Your task to perform on an android device: turn off improve location accuracy Image 0: 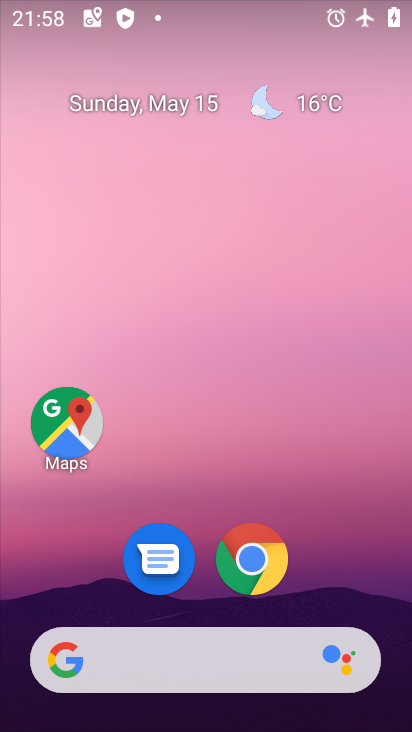
Step 0: drag from (318, 545) to (268, 135)
Your task to perform on an android device: turn off improve location accuracy Image 1: 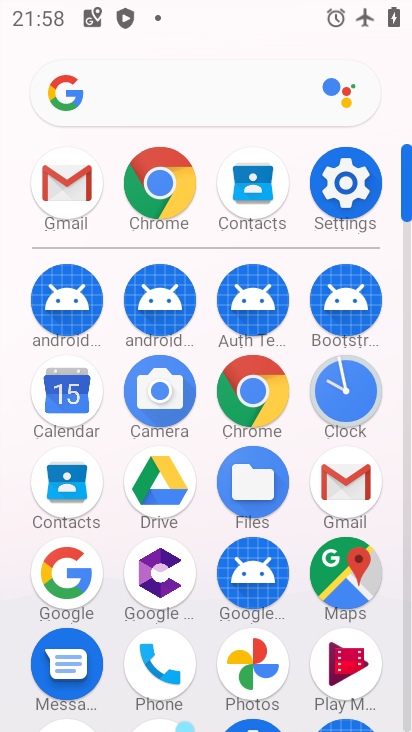
Step 1: click (353, 186)
Your task to perform on an android device: turn off improve location accuracy Image 2: 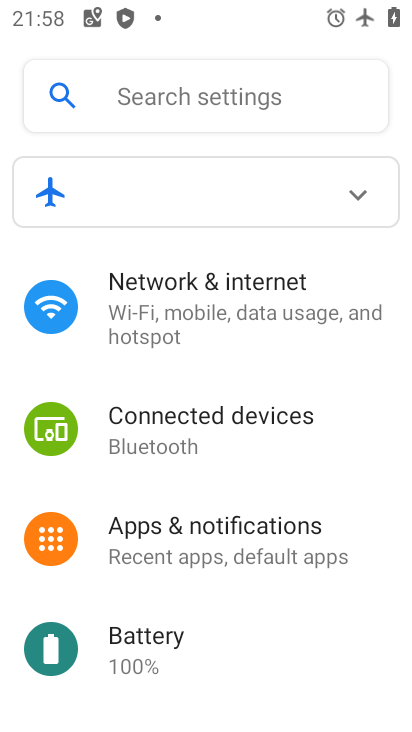
Step 2: drag from (215, 607) to (176, 267)
Your task to perform on an android device: turn off improve location accuracy Image 3: 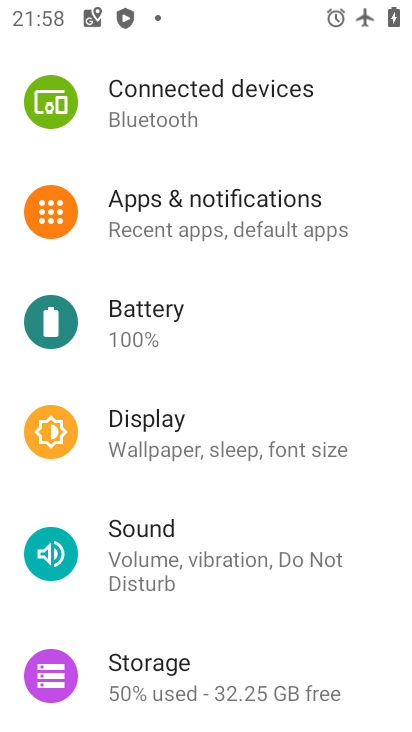
Step 3: drag from (219, 487) to (179, 171)
Your task to perform on an android device: turn off improve location accuracy Image 4: 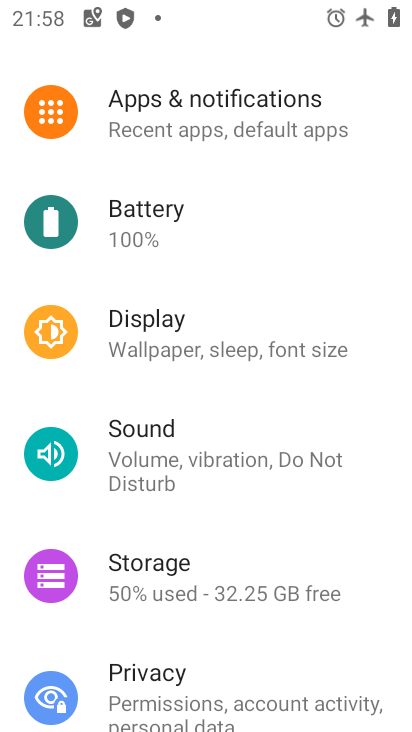
Step 4: drag from (169, 625) to (130, 213)
Your task to perform on an android device: turn off improve location accuracy Image 5: 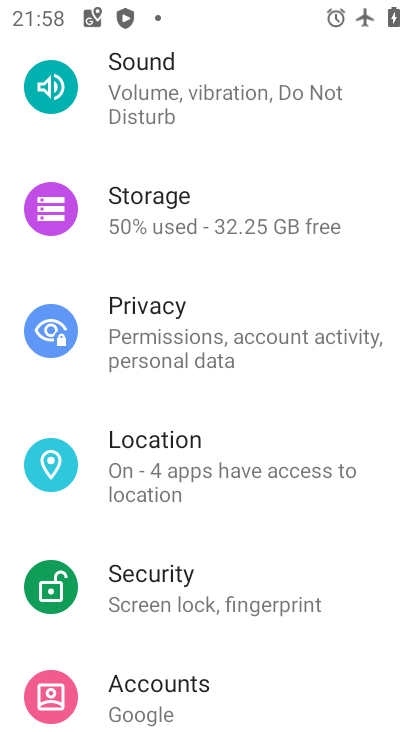
Step 5: click (152, 466)
Your task to perform on an android device: turn off improve location accuracy Image 6: 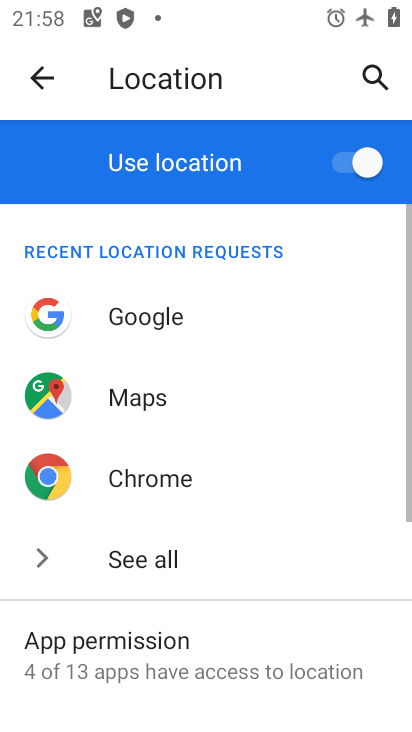
Step 6: drag from (238, 560) to (153, 249)
Your task to perform on an android device: turn off improve location accuracy Image 7: 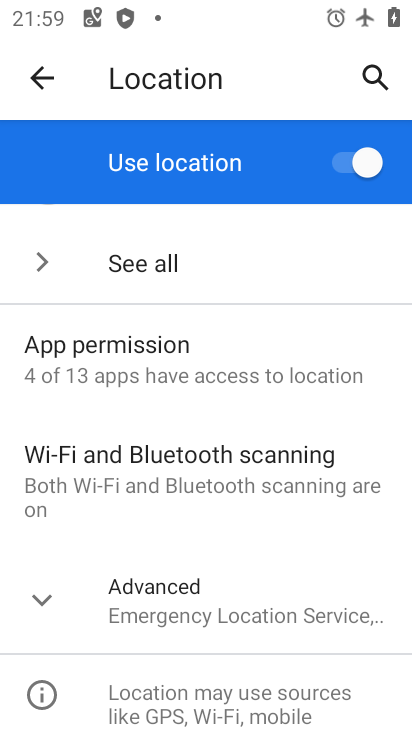
Step 7: click (45, 608)
Your task to perform on an android device: turn off improve location accuracy Image 8: 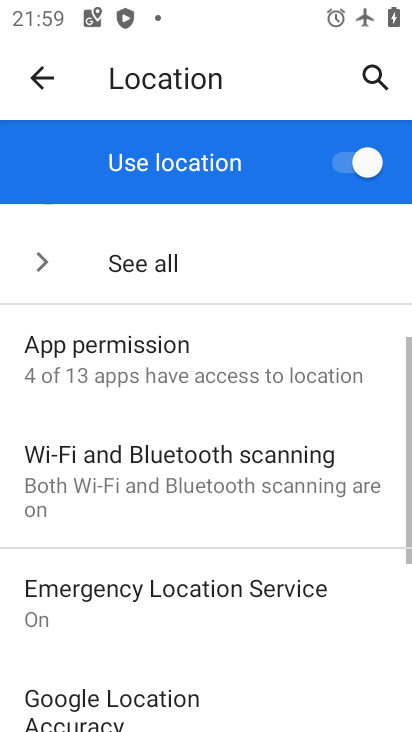
Step 8: drag from (198, 636) to (143, 332)
Your task to perform on an android device: turn off improve location accuracy Image 9: 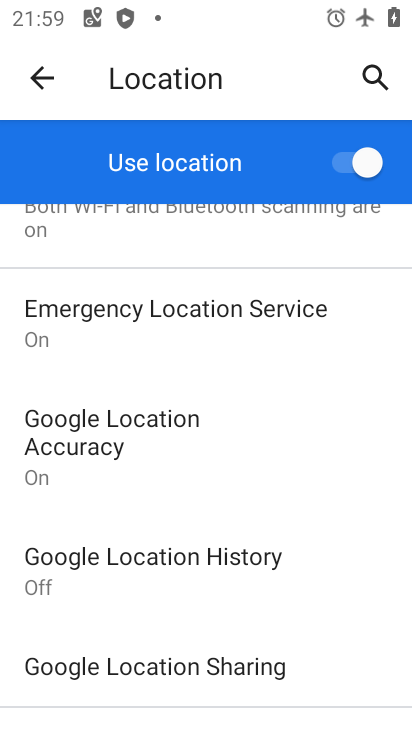
Step 9: click (98, 429)
Your task to perform on an android device: turn off improve location accuracy Image 10: 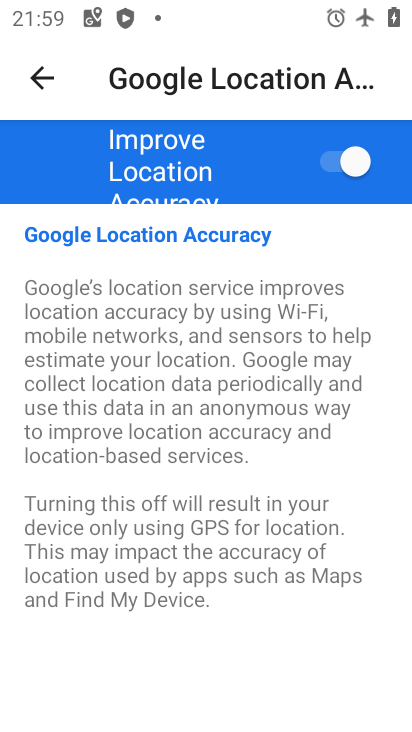
Step 10: click (348, 157)
Your task to perform on an android device: turn off improve location accuracy Image 11: 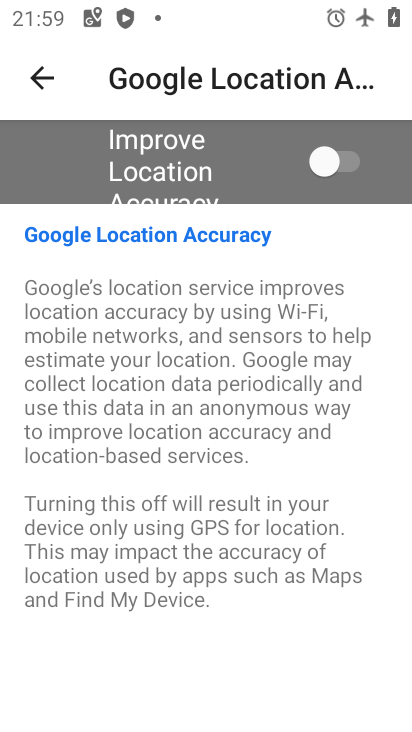
Step 11: task complete